Your task to perform on an android device: open a bookmark in the chrome app Image 0: 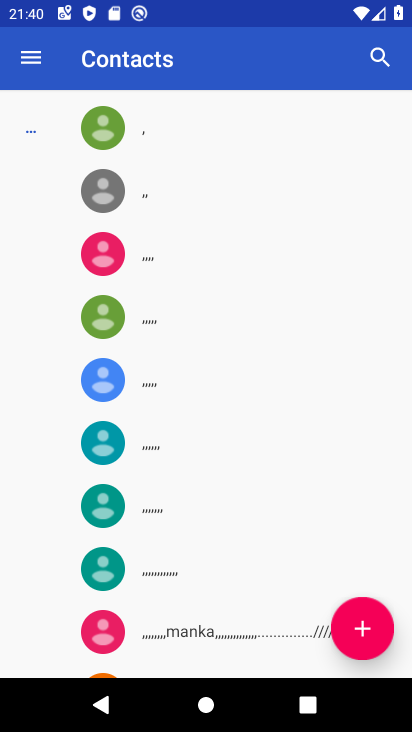
Step 0: press home button
Your task to perform on an android device: open a bookmark in the chrome app Image 1: 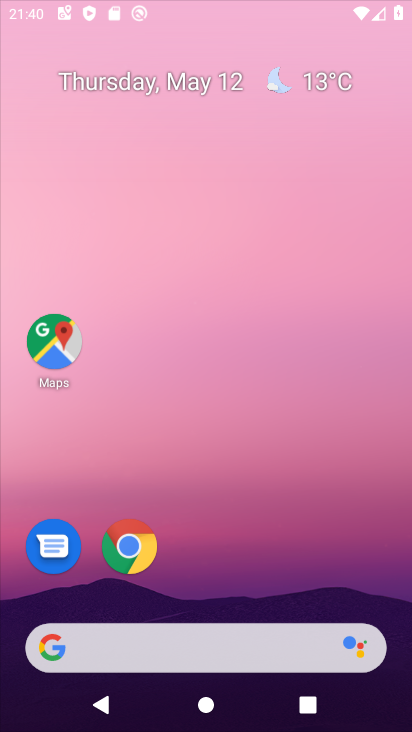
Step 1: press home button
Your task to perform on an android device: open a bookmark in the chrome app Image 2: 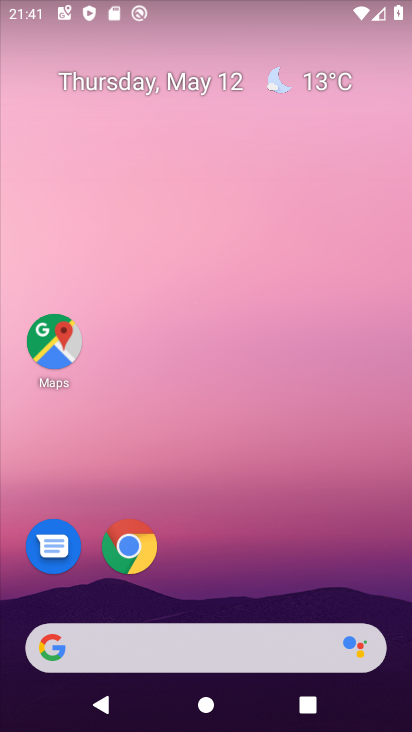
Step 2: click (123, 548)
Your task to perform on an android device: open a bookmark in the chrome app Image 3: 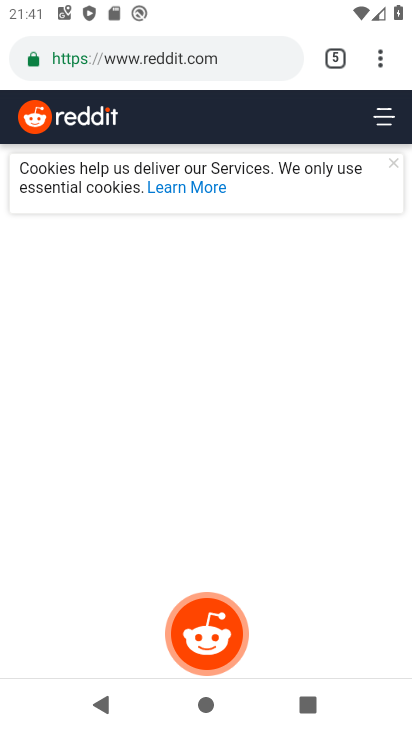
Step 3: task complete